Your task to perform on an android device: turn off translation in the chrome app Image 0: 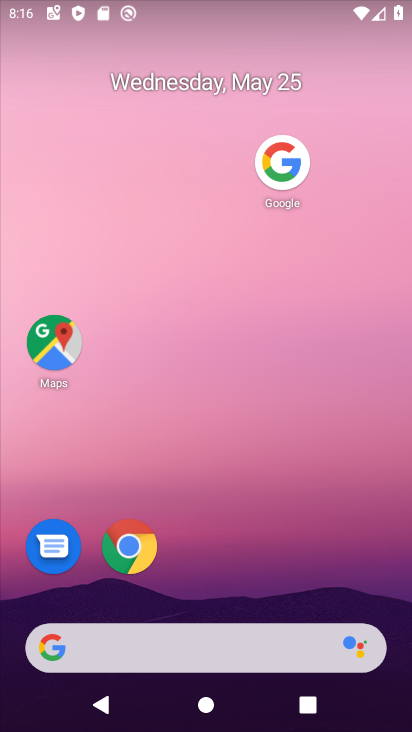
Step 0: click (137, 550)
Your task to perform on an android device: turn off translation in the chrome app Image 1: 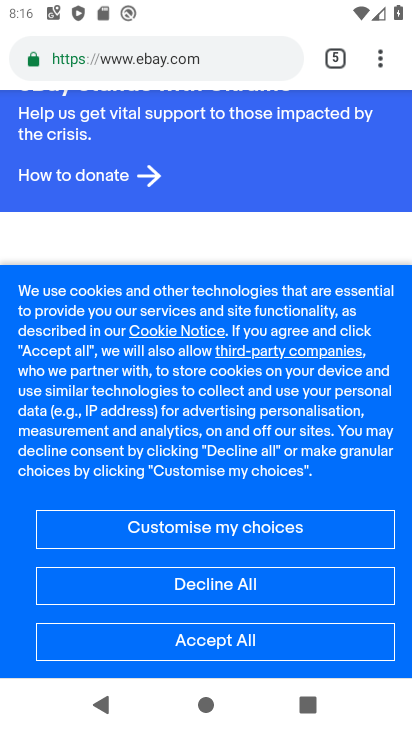
Step 1: drag from (374, 62) to (245, 566)
Your task to perform on an android device: turn off translation in the chrome app Image 2: 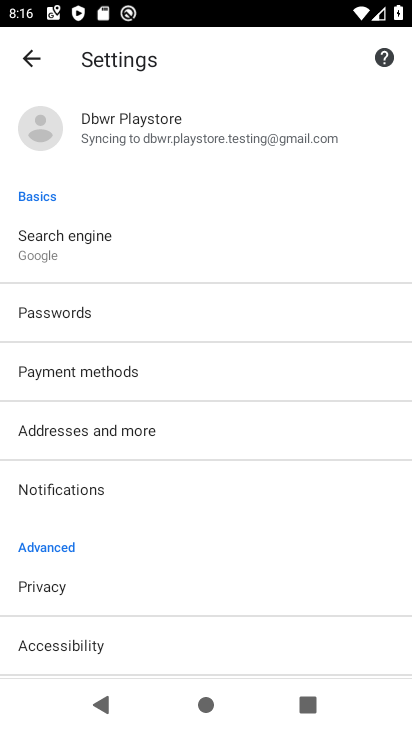
Step 2: drag from (221, 570) to (354, 286)
Your task to perform on an android device: turn off translation in the chrome app Image 3: 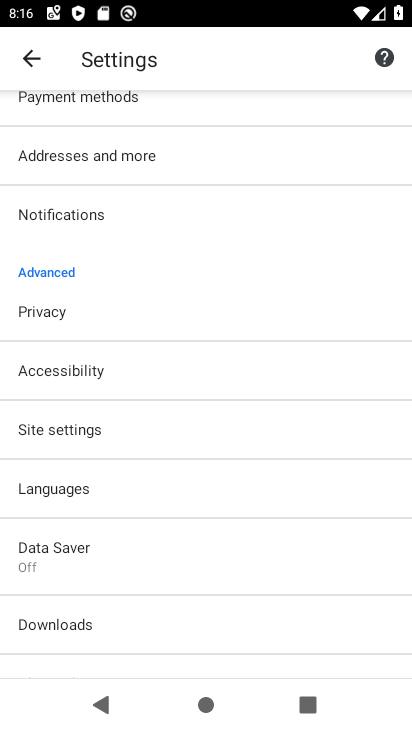
Step 3: click (88, 494)
Your task to perform on an android device: turn off translation in the chrome app Image 4: 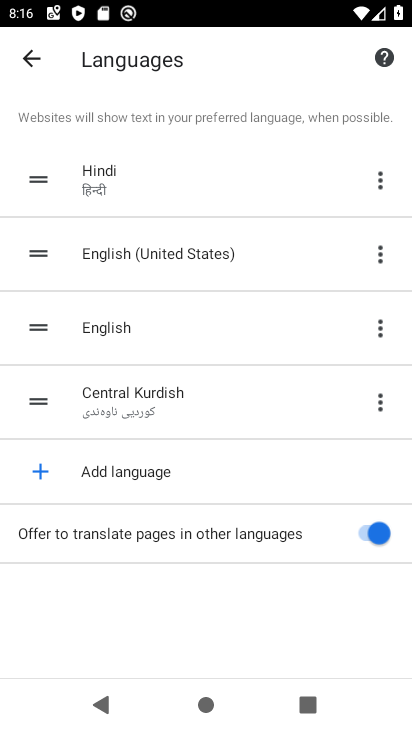
Step 4: click (357, 528)
Your task to perform on an android device: turn off translation in the chrome app Image 5: 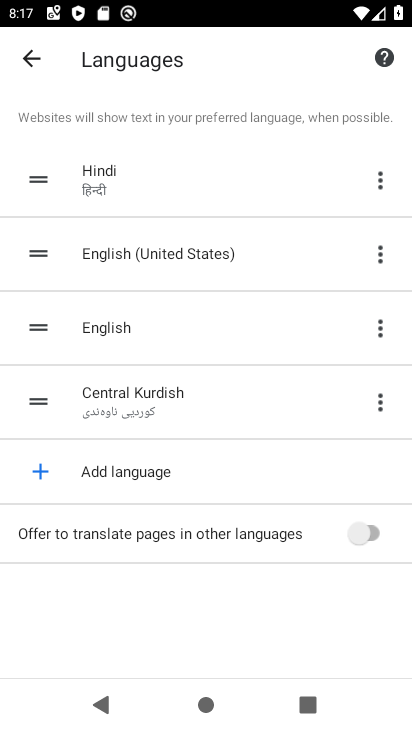
Step 5: task complete